Your task to perform on an android device: Go to battery settings Image 0: 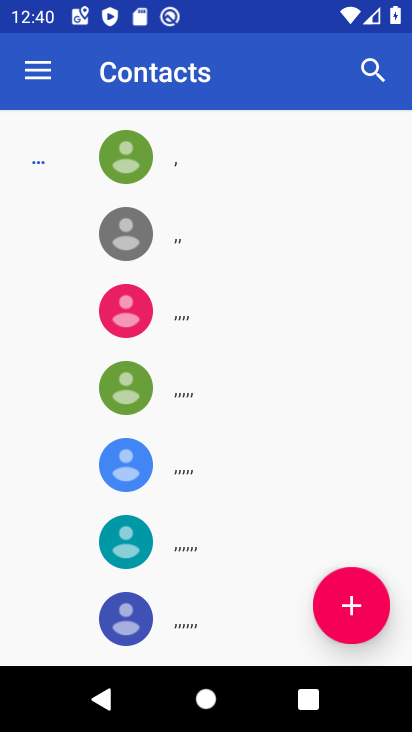
Step 0: press home button
Your task to perform on an android device: Go to battery settings Image 1: 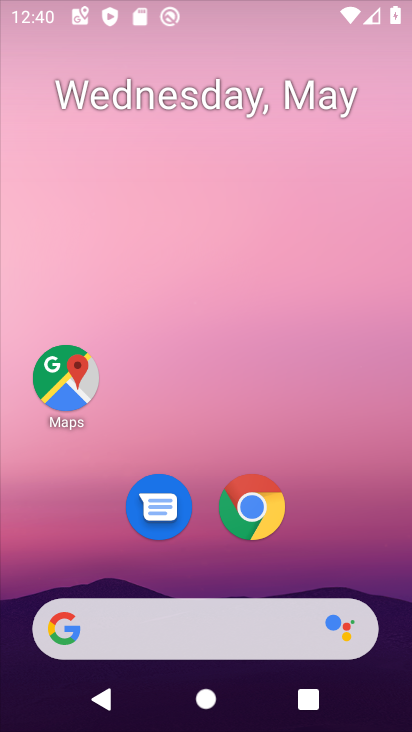
Step 1: drag from (190, 550) to (214, 186)
Your task to perform on an android device: Go to battery settings Image 2: 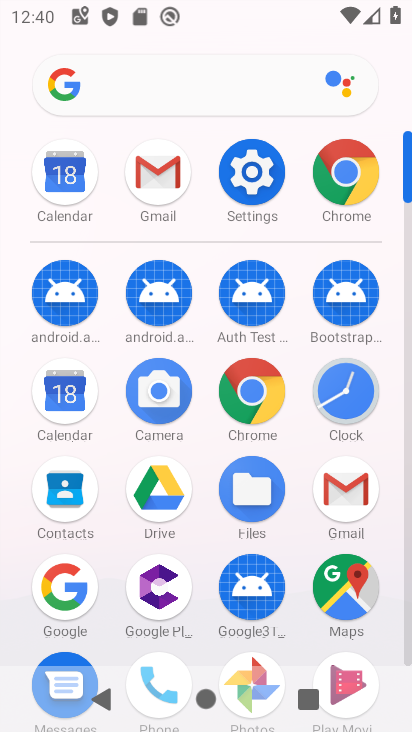
Step 2: click (253, 174)
Your task to perform on an android device: Go to battery settings Image 3: 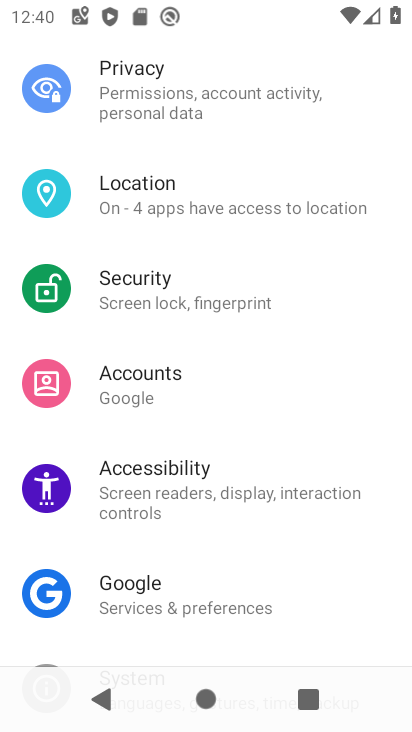
Step 3: drag from (205, 159) to (205, 486)
Your task to perform on an android device: Go to battery settings Image 4: 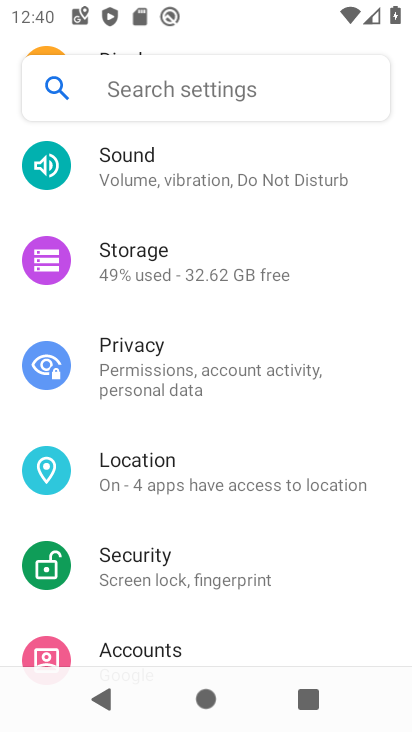
Step 4: drag from (177, 185) to (179, 557)
Your task to perform on an android device: Go to battery settings Image 5: 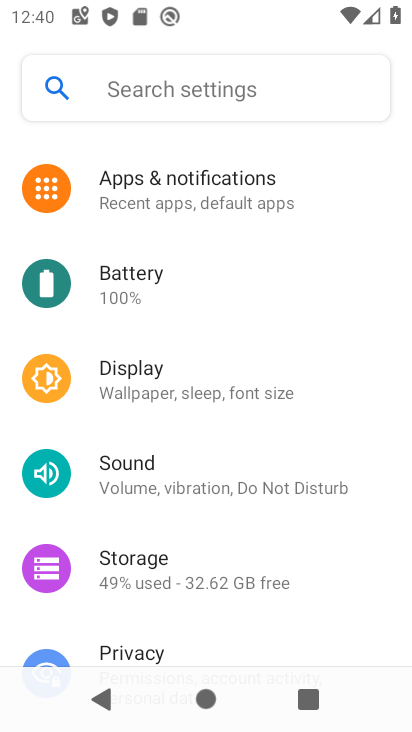
Step 5: click (165, 272)
Your task to perform on an android device: Go to battery settings Image 6: 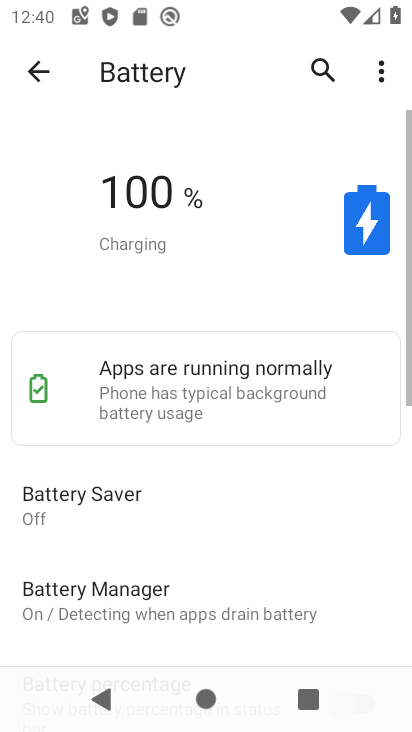
Step 6: task complete